Your task to perform on an android device: remove spam from my inbox in the gmail app Image 0: 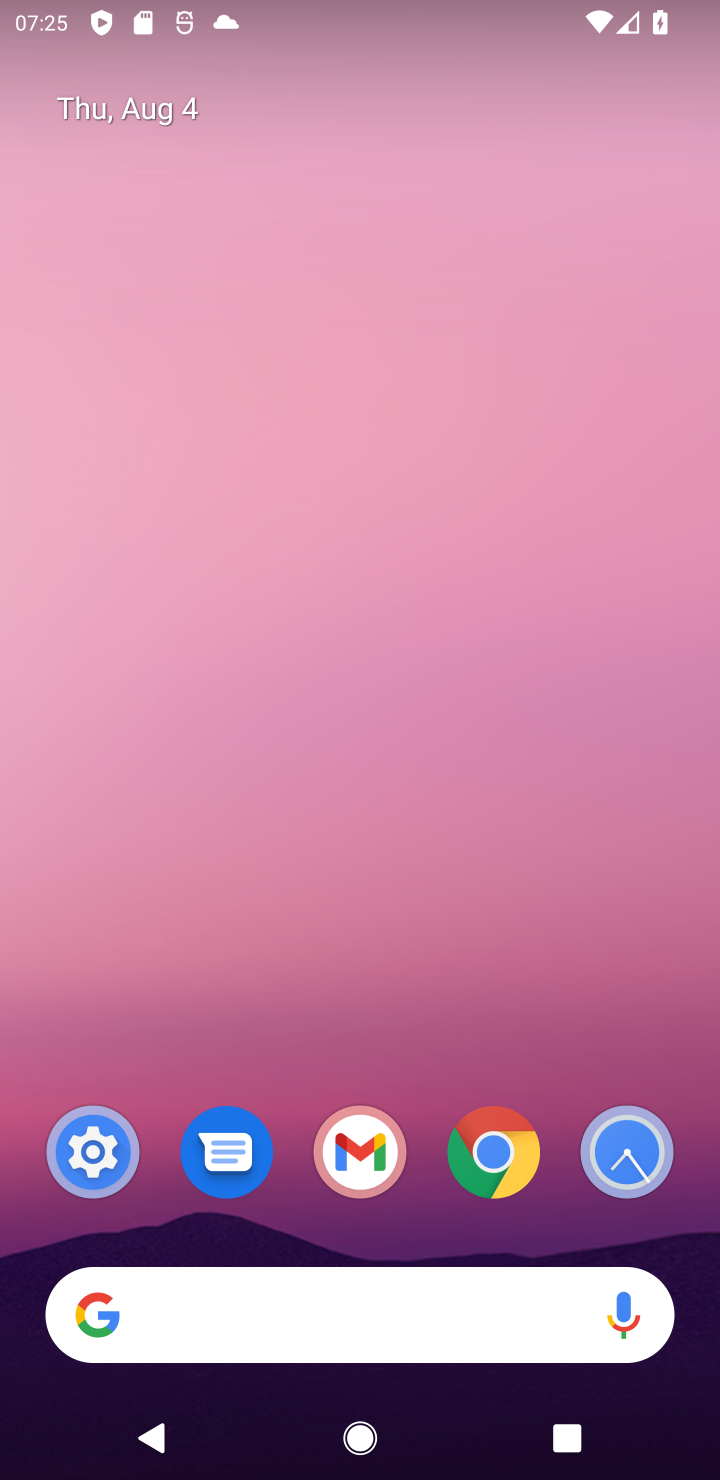
Step 0: click (423, 138)
Your task to perform on an android device: remove spam from my inbox in the gmail app Image 1: 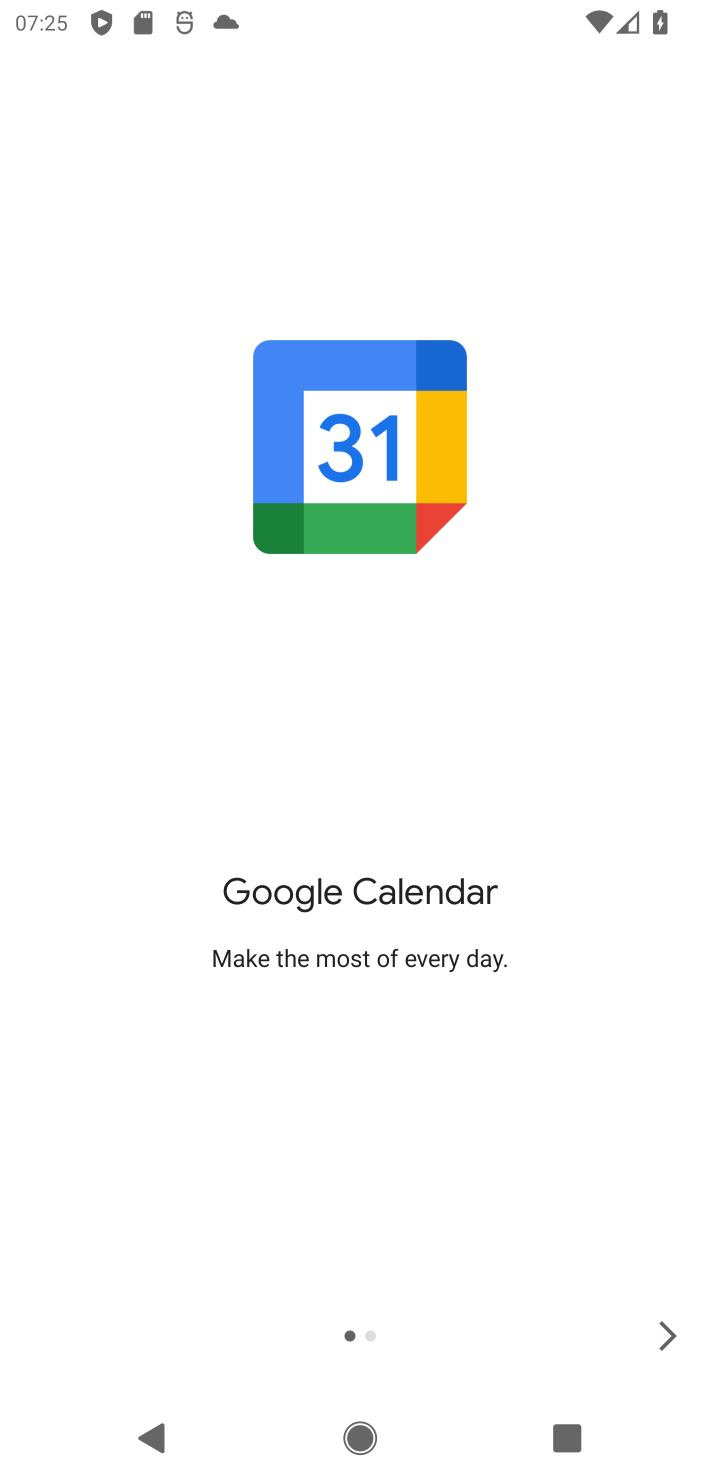
Step 1: press home button
Your task to perform on an android device: remove spam from my inbox in the gmail app Image 2: 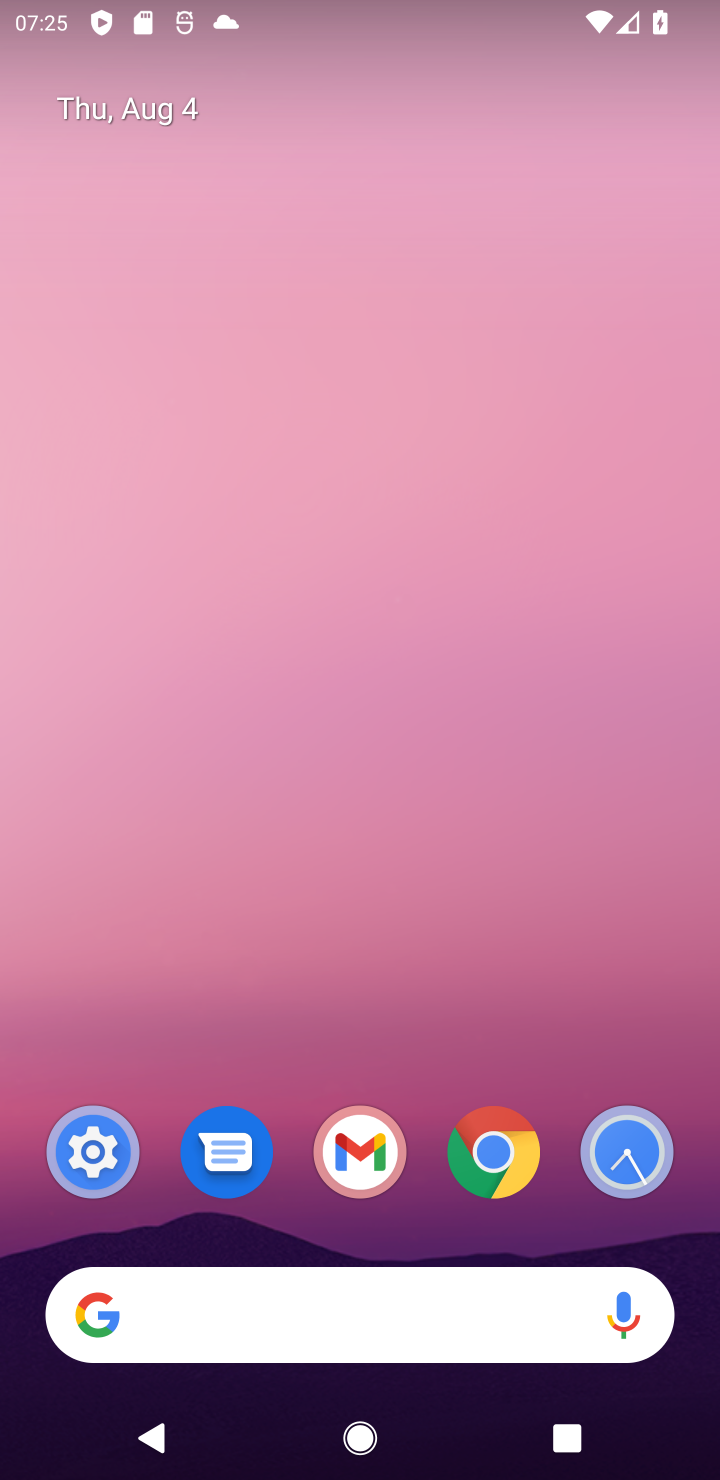
Step 2: drag from (177, 712) to (367, 5)
Your task to perform on an android device: remove spam from my inbox in the gmail app Image 3: 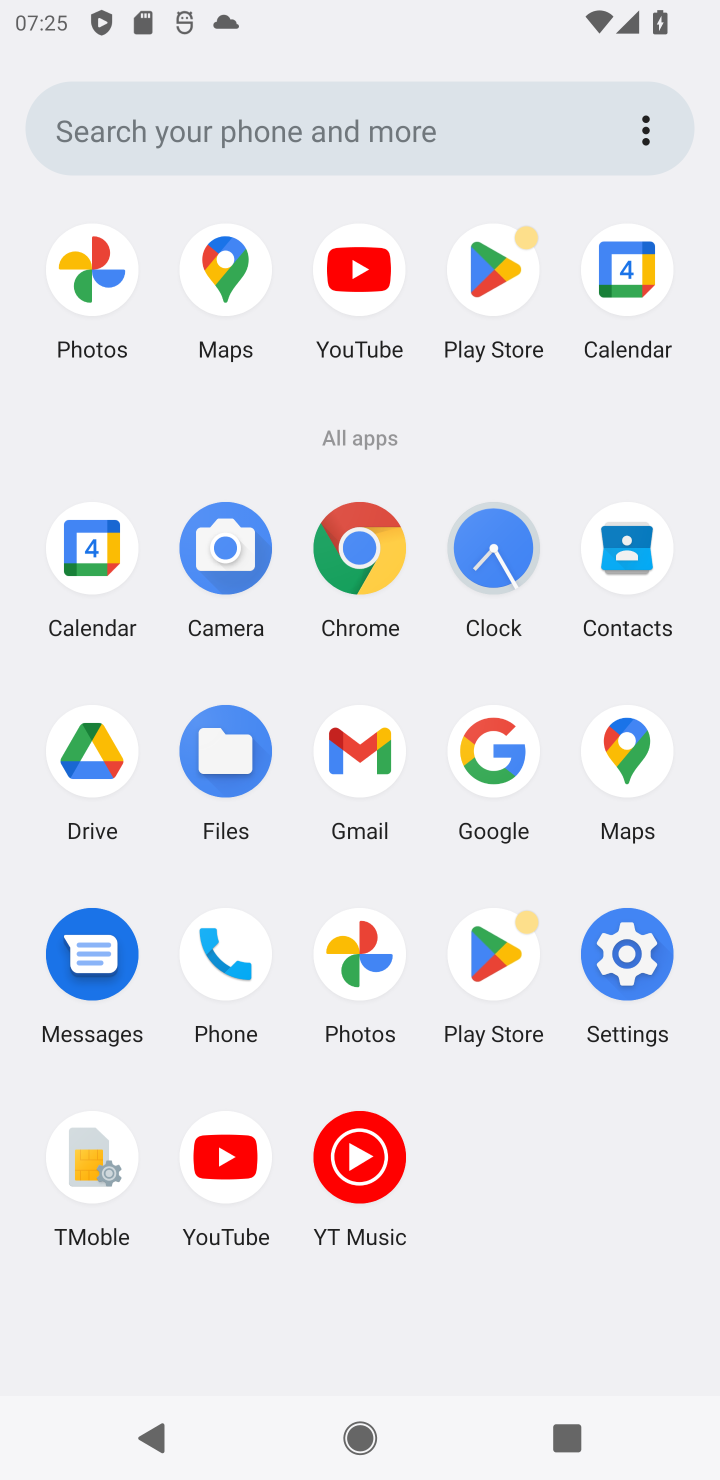
Step 3: click (377, 730)
Your task to perform on an android device: remove spam from my inbox in the gmail app Image 4: 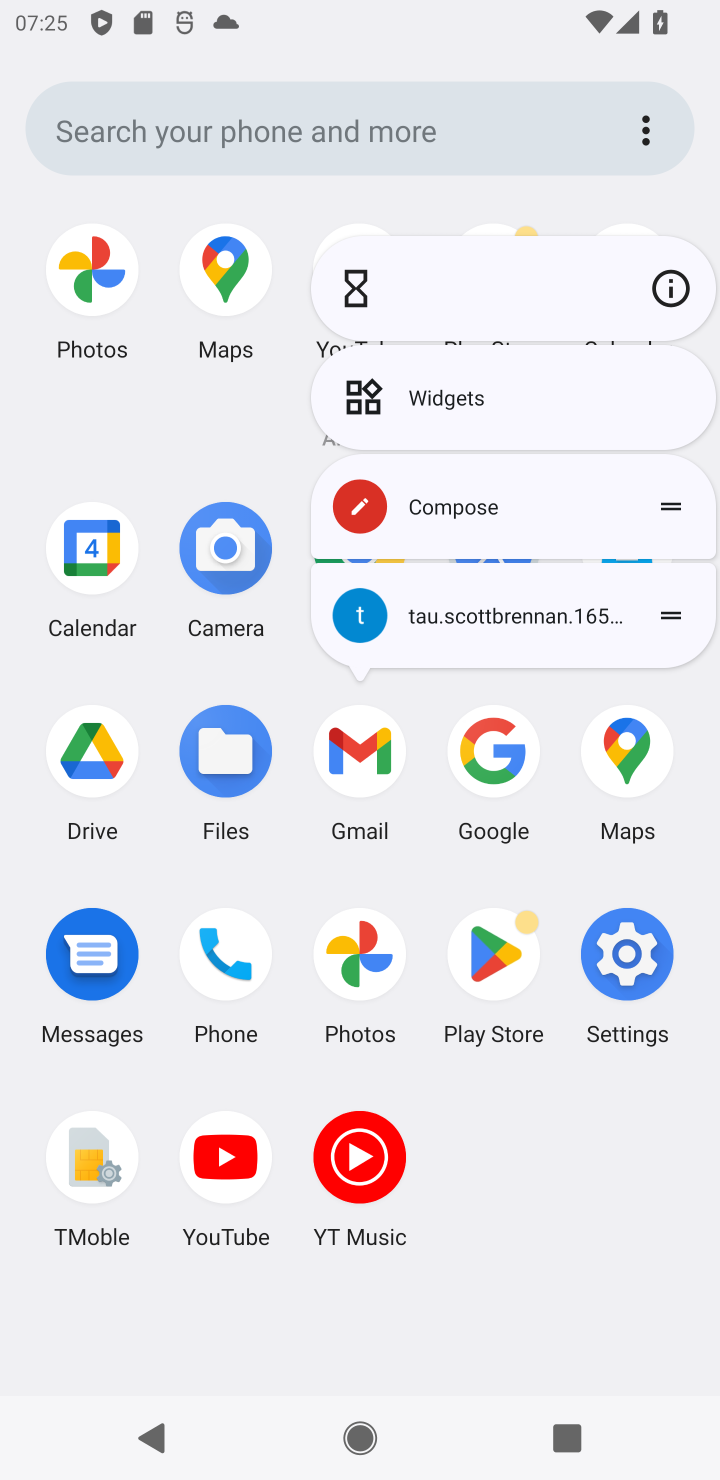
Step 4: click (377, 730)
Your task to perform on an android device: remove spam from my inbox in the gmail app Image 5: 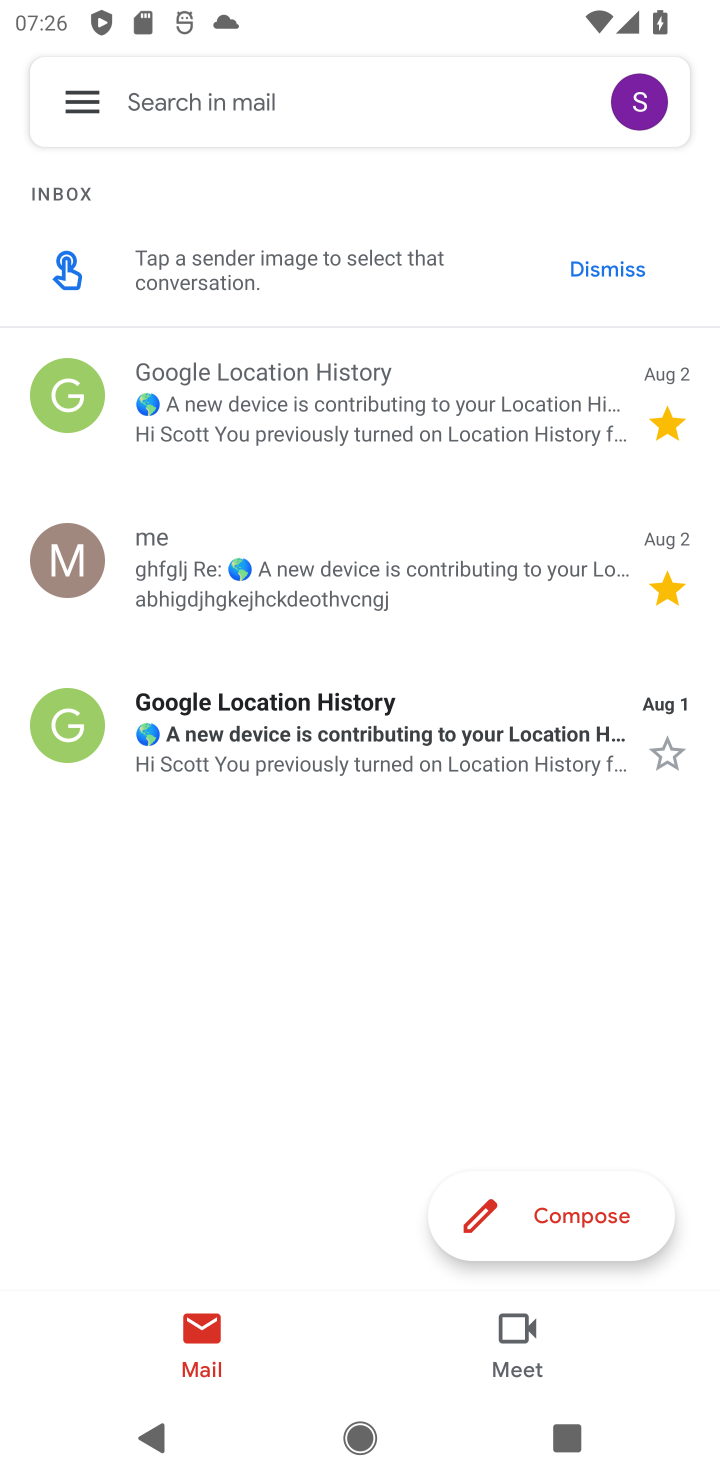
Step 5: click (73, 93)
Your task to perform on an android device: remove spam from my inbox in the gmail app Image 6: 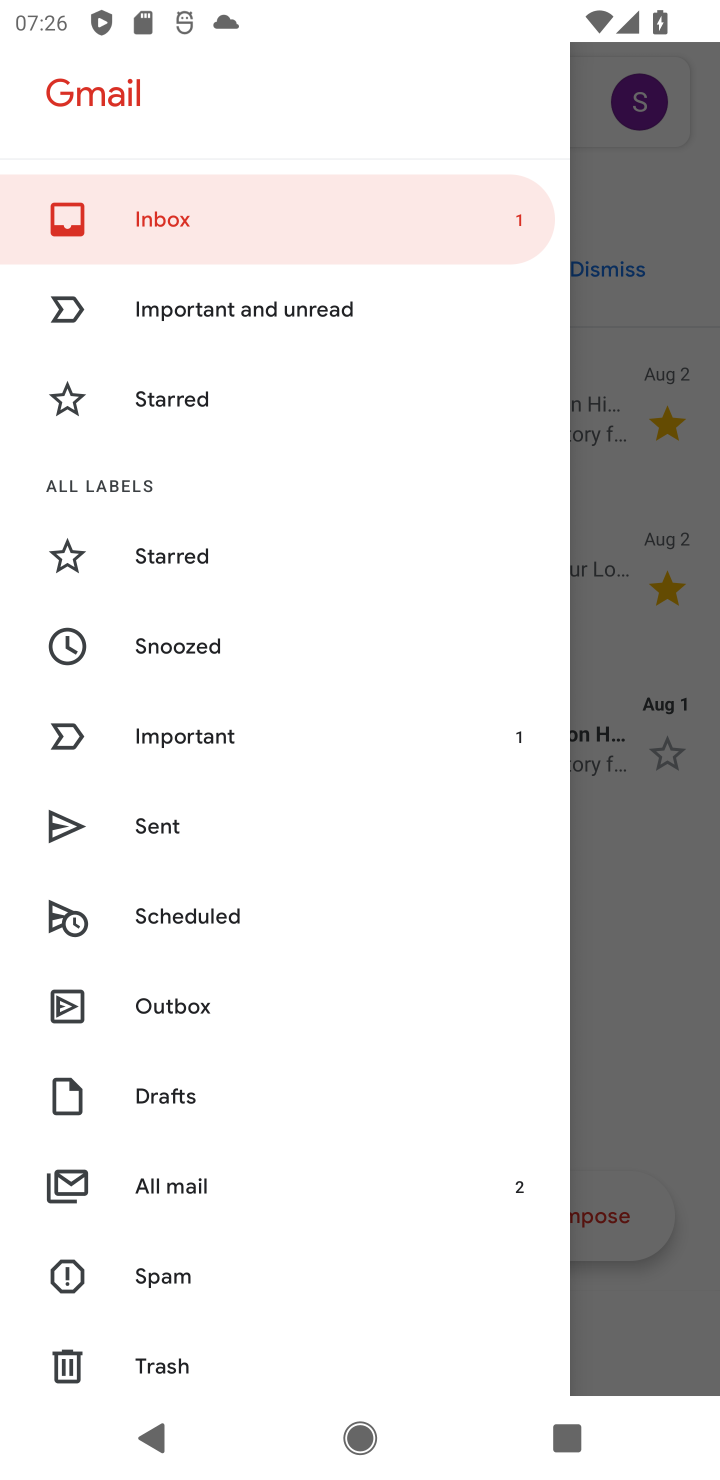
Step 6: click (187, 1294)
Your task to perform on an android device: remove spam from my inbox in the gmail app Image 7: 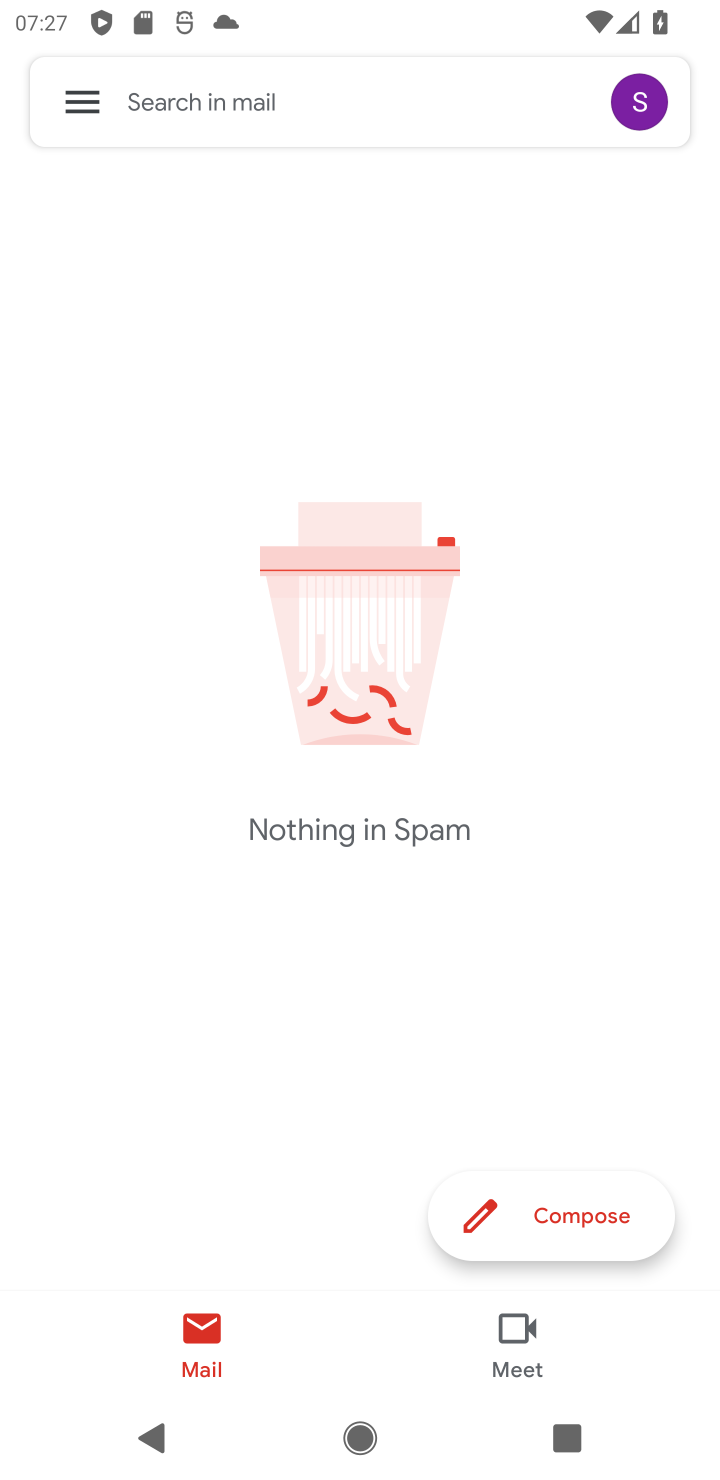
Step 7: task complete